Your task to perform on an android device: Show me popular games on the Play Store Image 0: 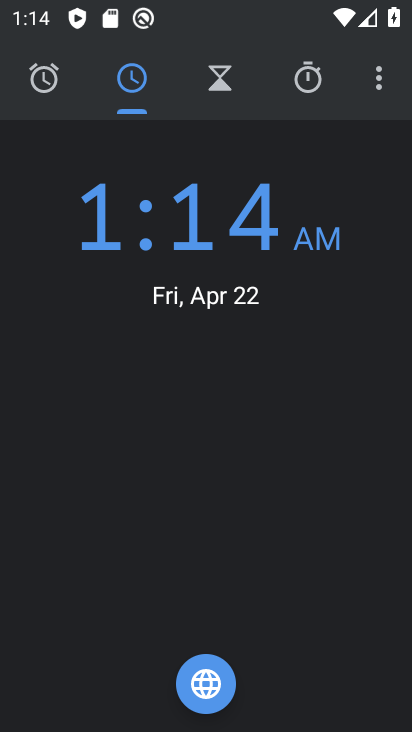
Step 0: press home button
Your task to perform on an android device: Show me popular games on the Play Store Image 1: 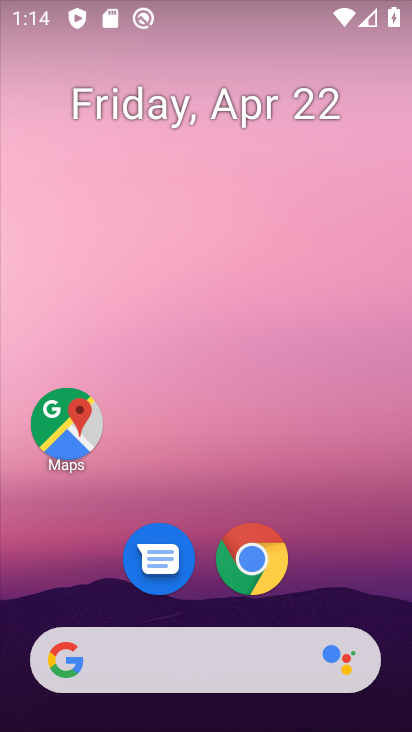
Step 1: drag from (207, 544) to (254, 80)
Your task to perform on an android device: Show me popular games on the Play Store Image 2: 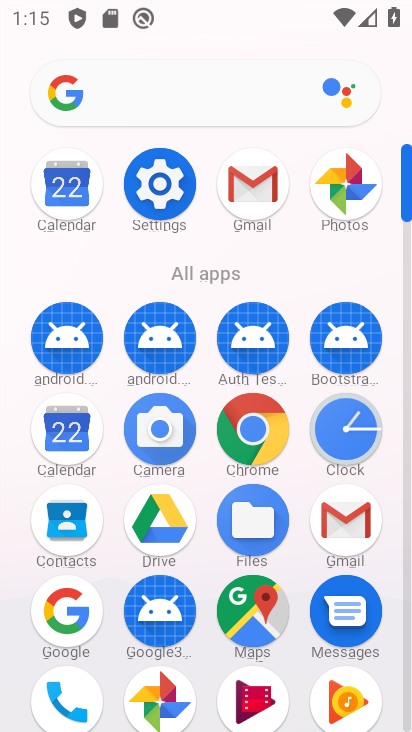
Step 2: drag from (111, 632) to (141, 352)
Your task to perform on an android device: Show me popular games on the Play Store Image 3: 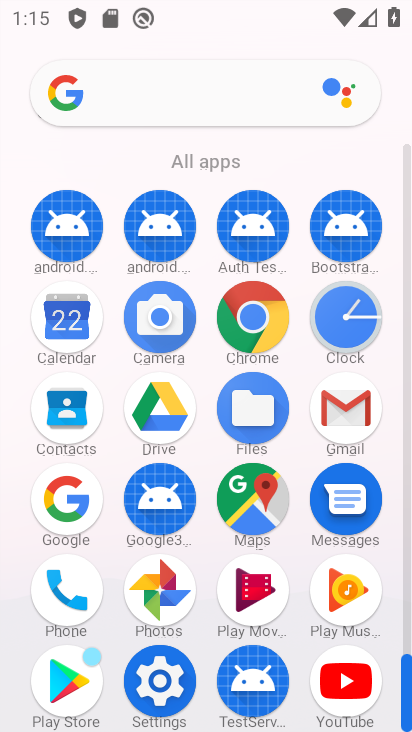
Step 3: click (70, 695)
Your task to perform on an android device: Show me popular games on the Play Store Image 4: 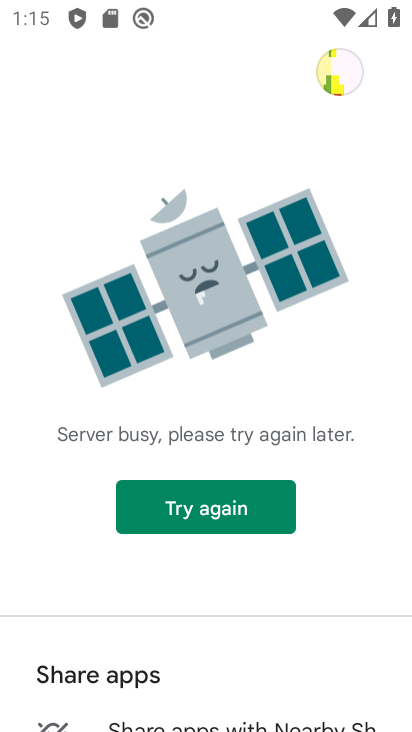
Step 4: click (222, 511)
Your task to perform on an android device: Show me popular games on the Play Store Image 5: 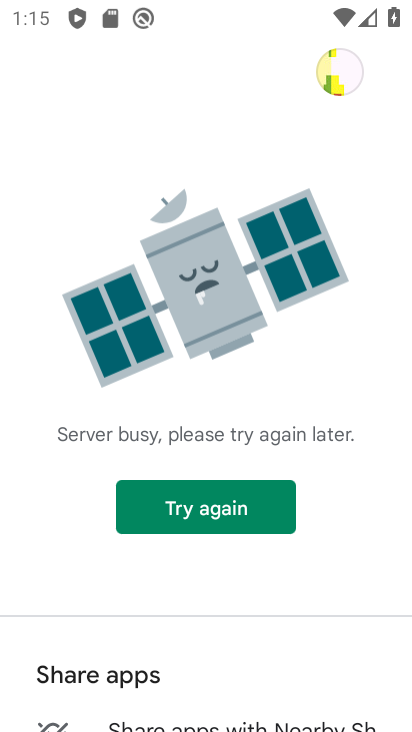
Step 5: task complete